Your task to perform on an android device: turn off picture-in-picture Image 0: 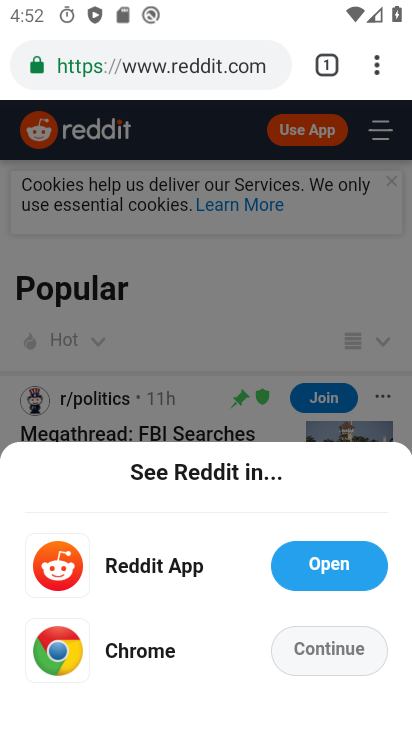
Step 0: press home button
Your task to perform on an android device: turn off picture-in-picture Image 1: 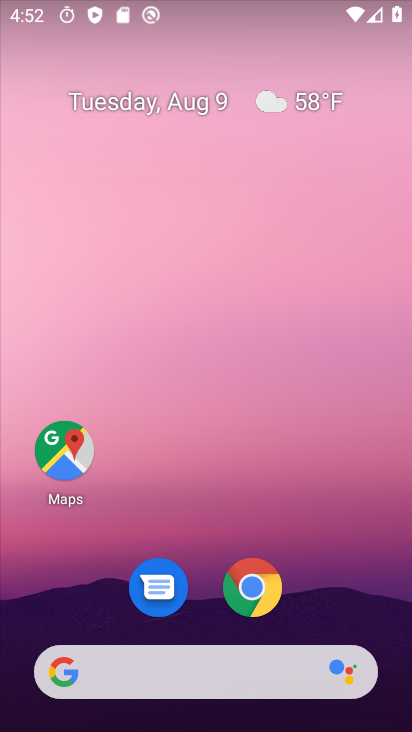
Step 1: click (258, 573)
Your task to perform on an android device: turn off picture-in-picture Image 2: 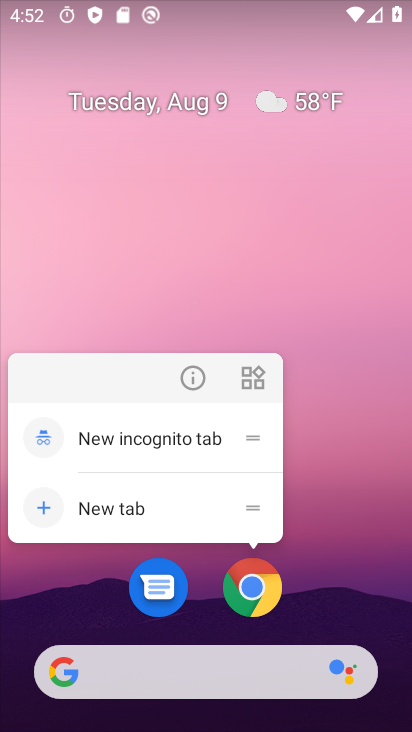
Step 2: click (190, 370)
Your task to perform on an android device: turn off picture-in-picture Image 3: 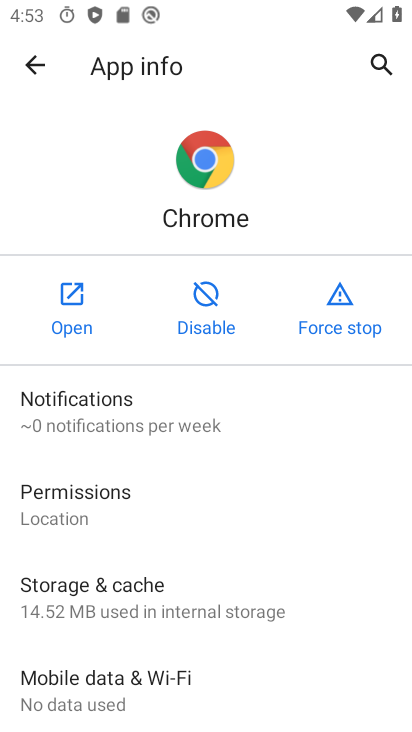
Step 3: drag from (177, 637) to (176, 160)
Your task to perform on an android device: turn off picture-in-picture Image 4: 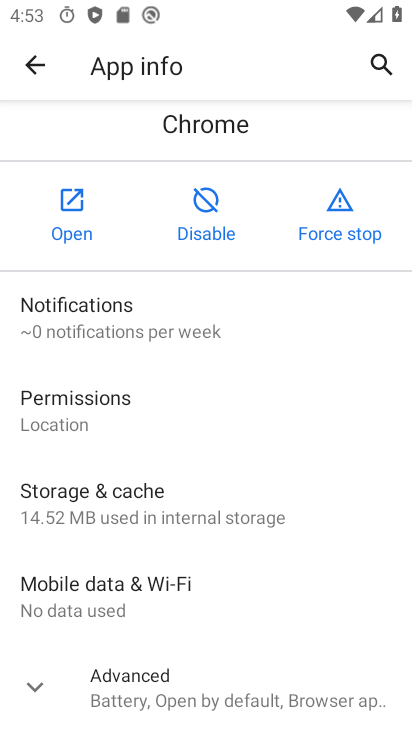
Step 4: click (195, 702)
Your task to perform on an android device: turn off picture-in-picture Image 5: 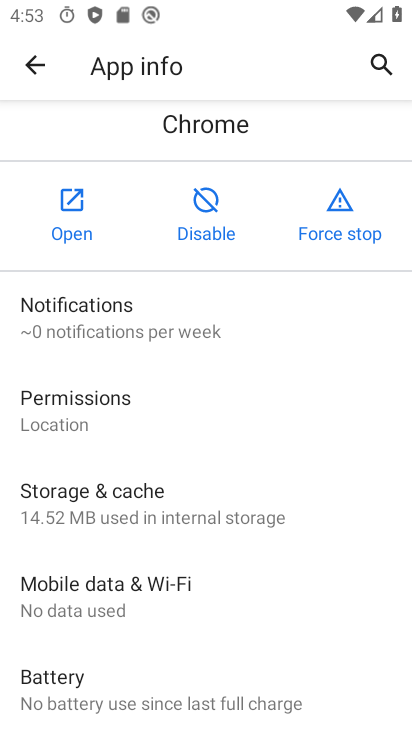
Step 5: drag from (206, 641) to (241, 99)
Your task to perform on an android device: turn off picture-in-picture Image 6: 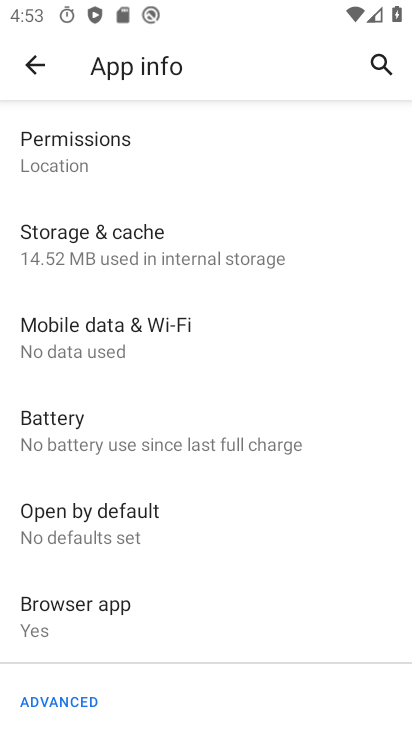
Step 6: drag from (202, 648) to (289, 22)
Your task to perform on an android device: turn off picture-in-picture Image 7: 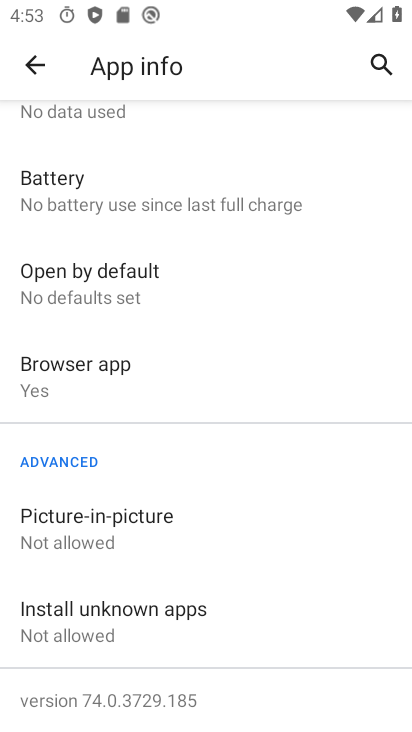
Step 7: click (155, 510)
Your task to perform on an android device: turn off picture-in-picture Image 8: 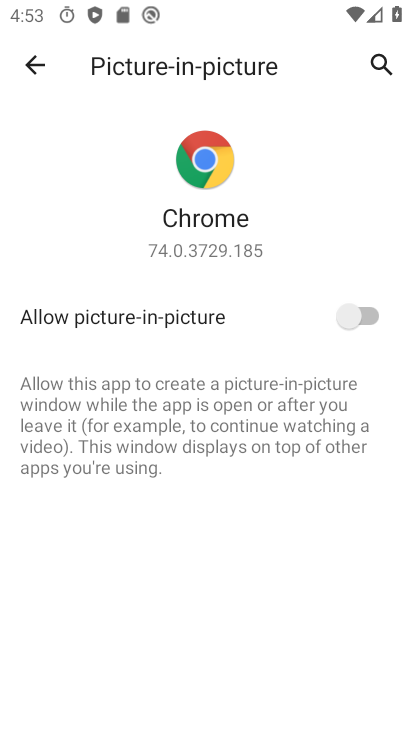
Step 8: task complete